Your task to perform on an android device: clear history in the chrome app Image 0: 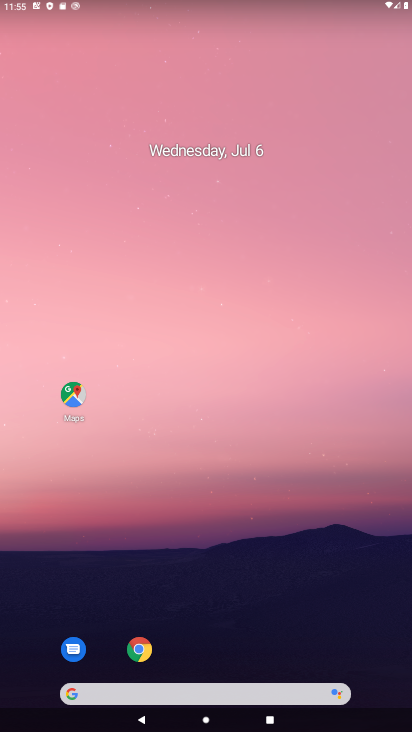
Step 0: click (140, 637)
Your task to perform on an android device: clear history in the chrome app Image 1: 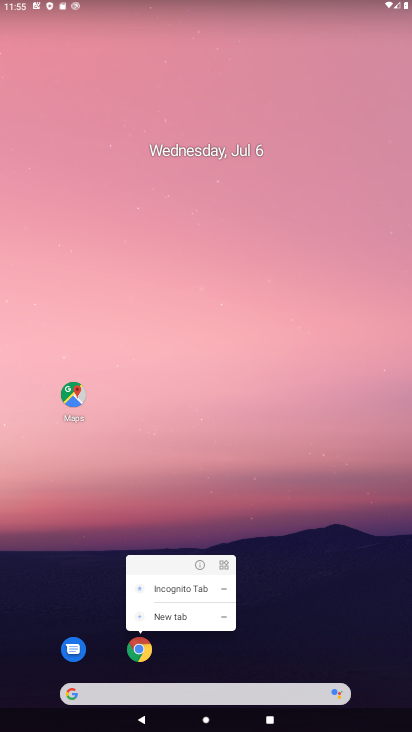
Step 1: click (135, 647)
Your task to perform on an android device: clear history in the chrome app Image 2: 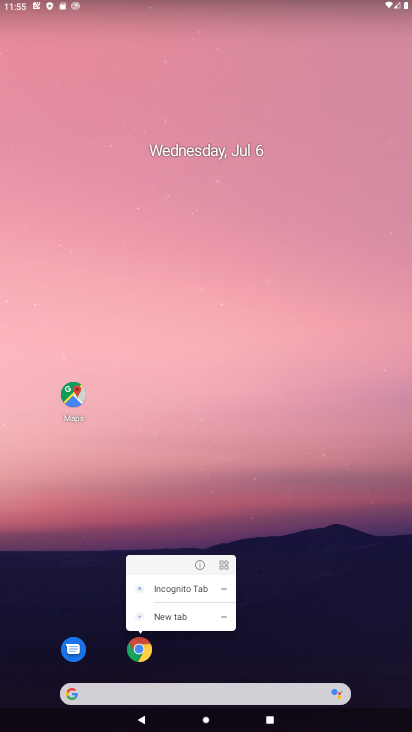
Step 2: click (140, 645)
Your task to perform on an android device: clear history in the chrome app Image 3: 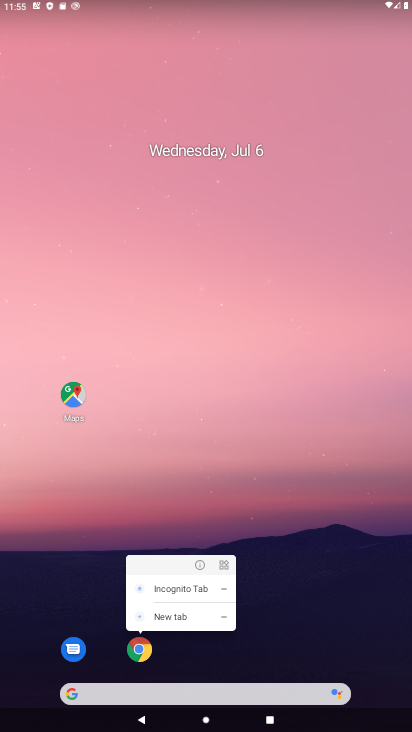
Step 3: click (146, 660)
Your task to perform on an android device: clear history in the chrome app Image 4: 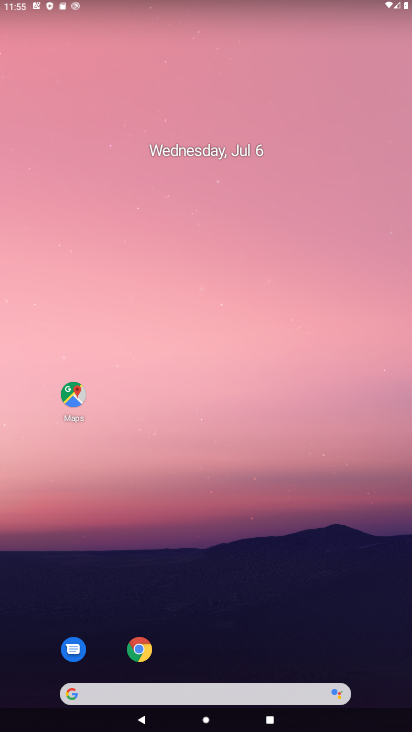
Step 4: click (125, 648)
Your task to perform on an android device: clear history in the chrome app Image 5: 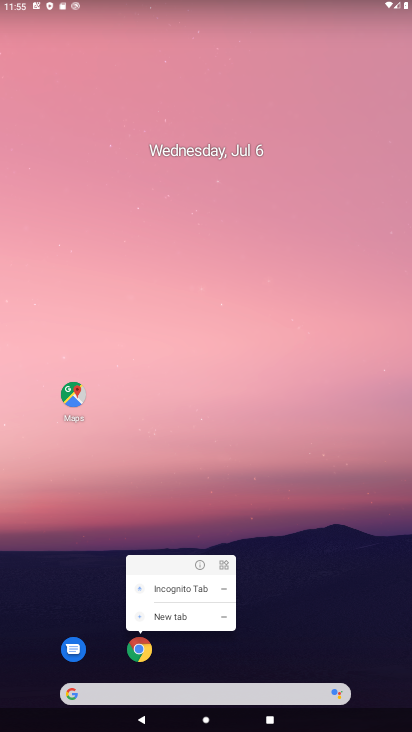
Step 5: click (129, 657)
Your task to perform on an android device: clear history in the chrome app Image 6: 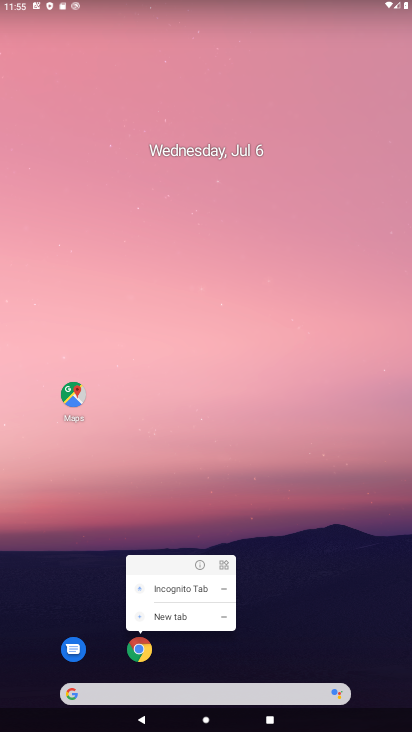
Step 6: click (138, 648)
Your task to perform on an android device: clear history in the chrome app Image 7: 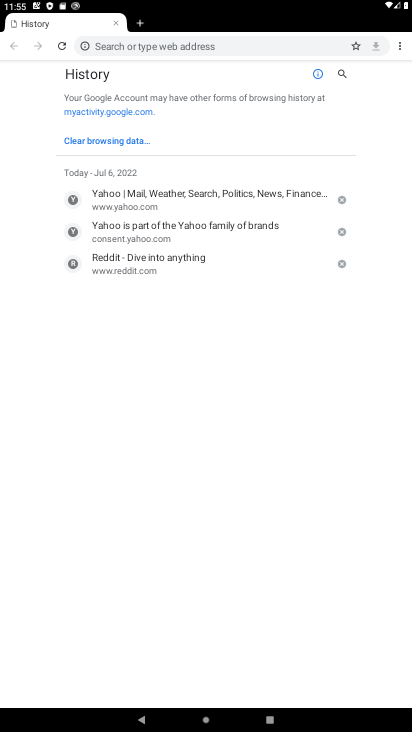
Step 7: click (112, 138)
Your task to perform on an android device: clear history in the chrome app Image 8: 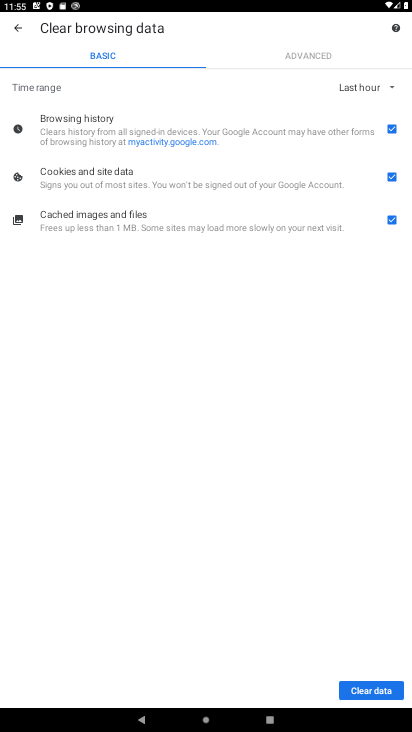
Step 8: click (389, 681)
Your task to perform on an android device: clear history in the chrome app Image 9: 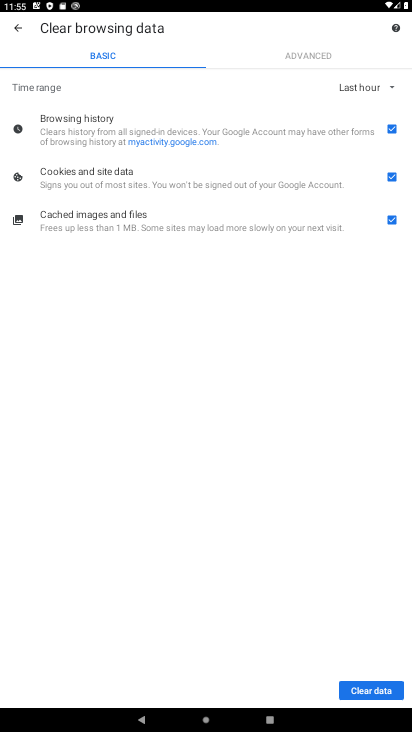
Step 9: click (379, 686)
Your task to perform on an android device: clear history in the chrome app Image 10: 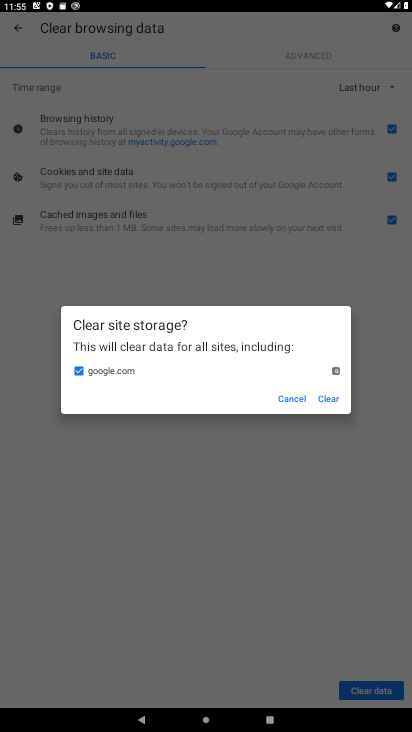
Step 10: click (326, 399)
Your task to perform on an android device: clear history in the chrome app Image 11: 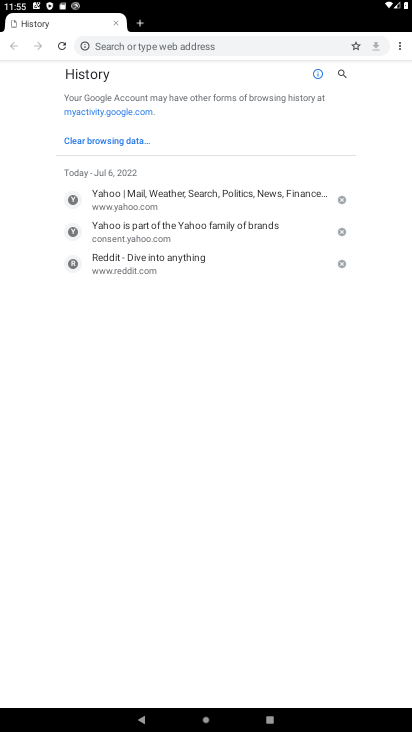
Step 11: task complete